Your task to perform on an android device: Do I have any events tomorrow? Image 0: 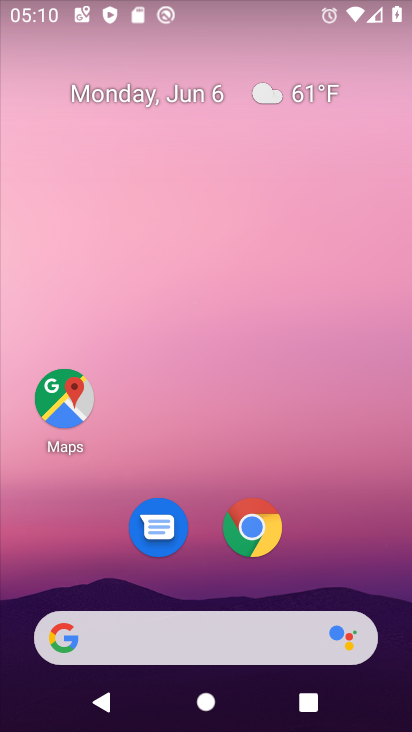
Step 0: drag from (394, 701) to (359, 337)
Your task to perform on an android device: Do I have any events tomorrow? Image 1: 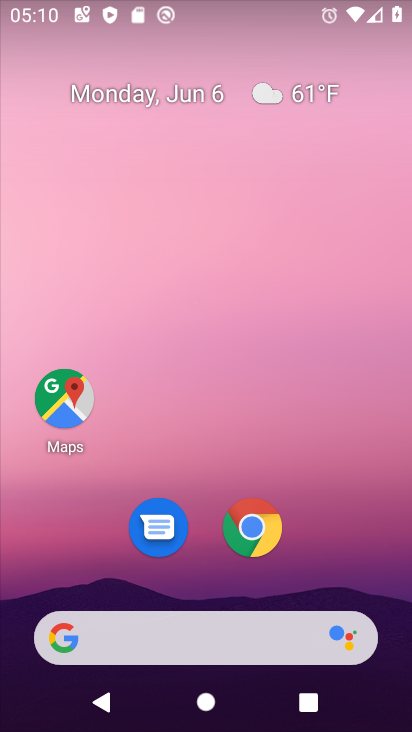
Step 1: drag from (396, 717) to (357, 130)
Your task to perform on an android device: Do I have any events tomorrow? Image 2: 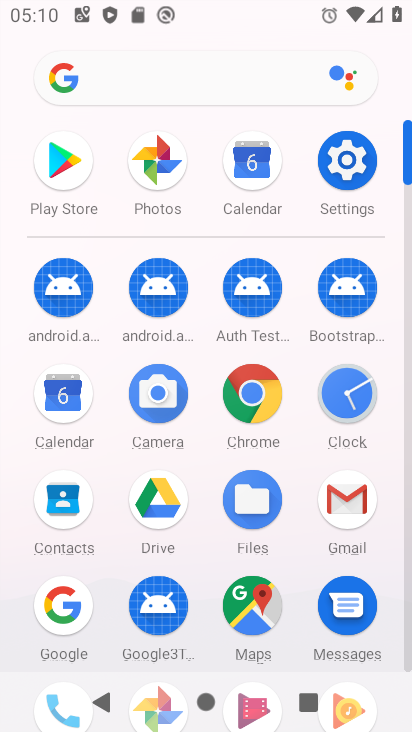
Step 2: click (69, 406)
Your task to perform on an android device: Do I have any events tomorrow? Image 3: 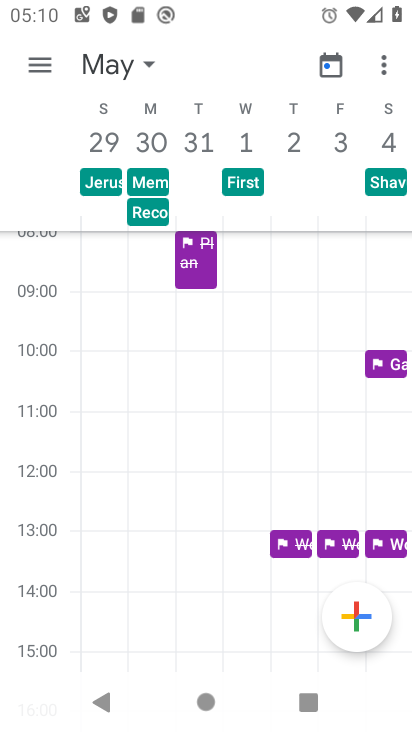
Step 3: click (144, 63)
Your task to perform on an android device: Do I have any events tomorrow? Image 4: 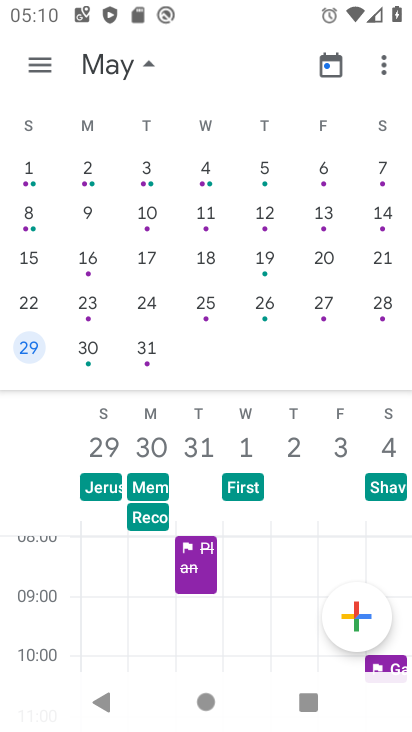
Step 4: drag from (400, 255) to (63, 246)
Your task to perform on an android device: Do I have any events tomorrow? Image 5: 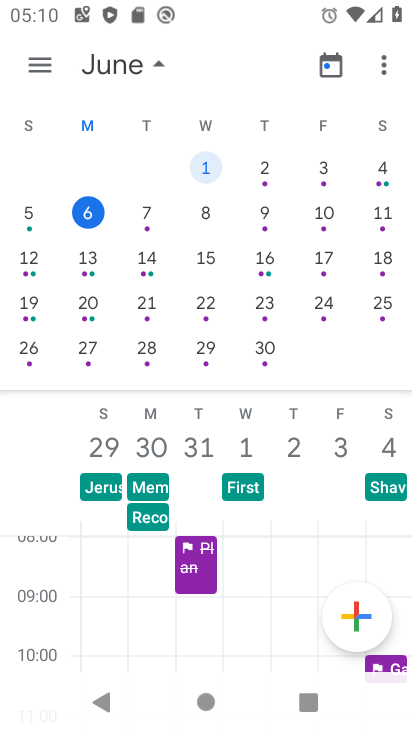
Step 5: click (145, 211)
Your task to perform on an android device: Do I have any events tomorrow? Image 6: 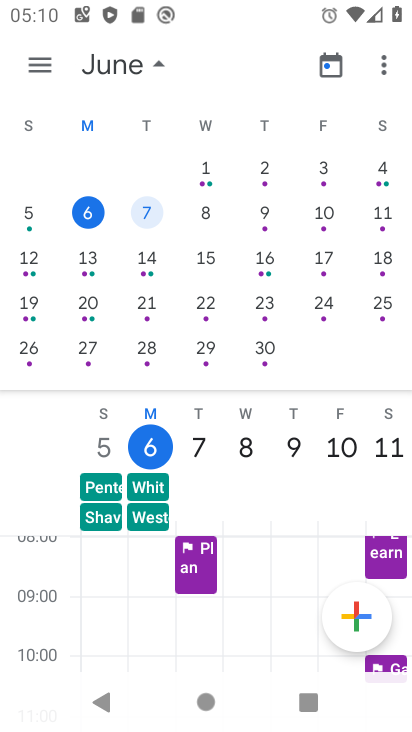
Step 6: click (42, 63)
Your task to perform on an android device: Do I have any events tomorrow? Image 7: 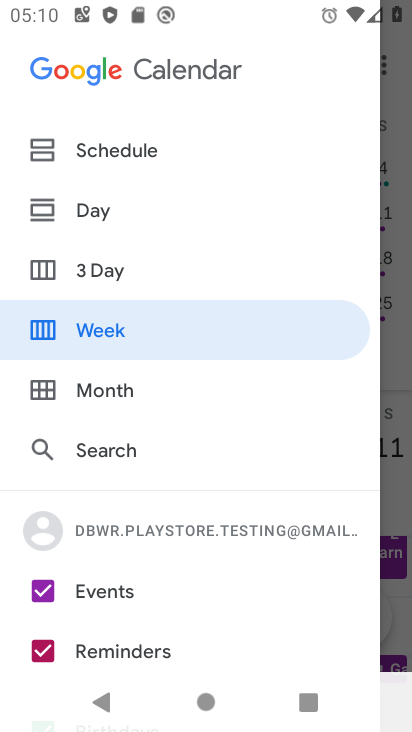
Step 7: click (92, 209)
Your task to perform on an android device: Do I have any events tomorrow? Image 8: 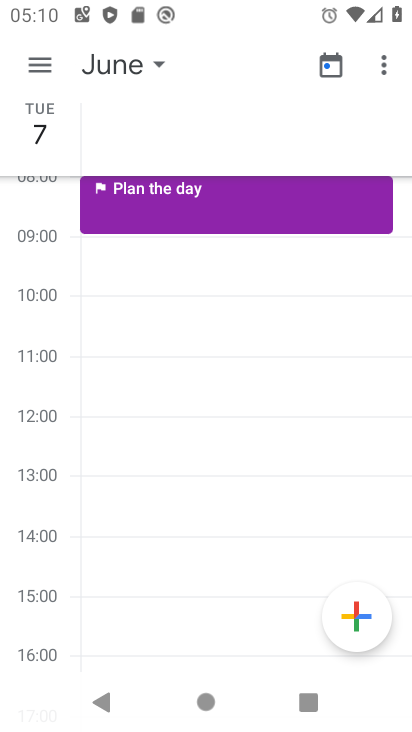
Step 8: task complete